Your task to perform on an android device: change keyboard looks Image 0: 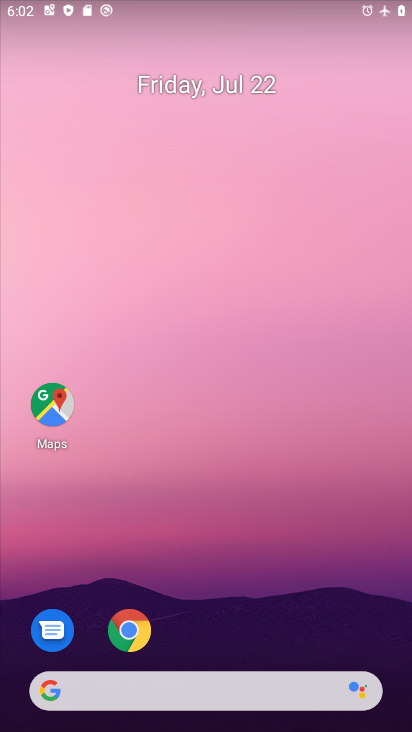
Step 0: drag from (155, 631) to (166, 131)
Your task to perform on an android device: change keyboard looks Image 1: 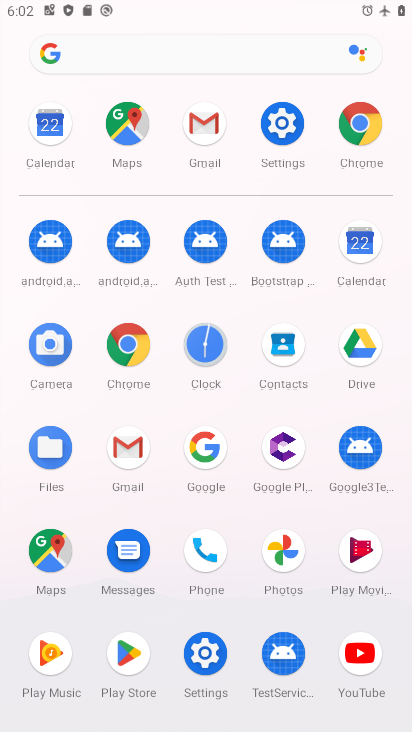
Step 1: click (275, 127)
Your task to perform on an android device: change keyboard looks Image 2: 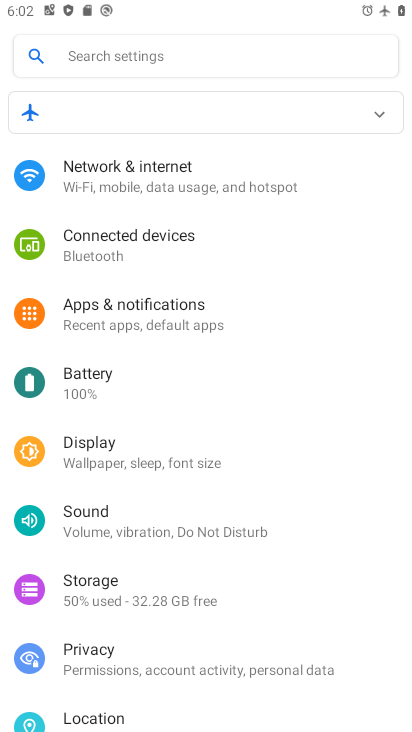
Step 2: drag from (184, 503) to (165, 1)
Your task to perform on an android device: change keyboard looks Image 3: 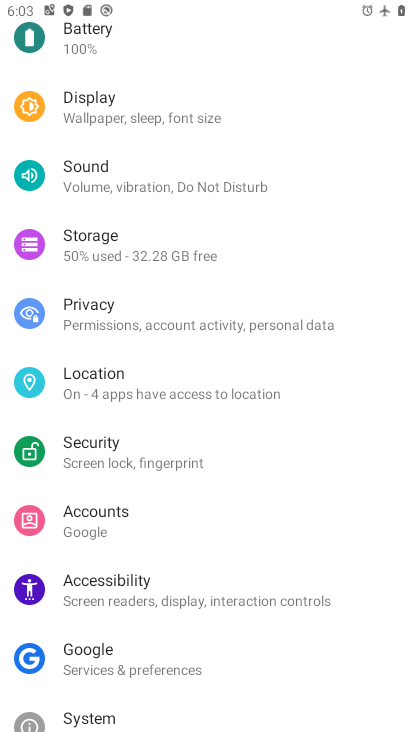
Step 3: drag from (120, 666) to (161, 98)
Your task to perform on an android device: change keyboard looks Image 4: 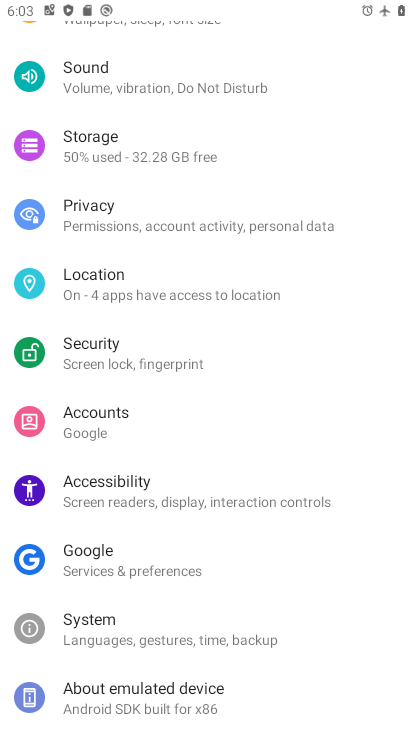
Step 4: click (139, 640)
Your task to perform on an android device: change keyboard looks Image 5: 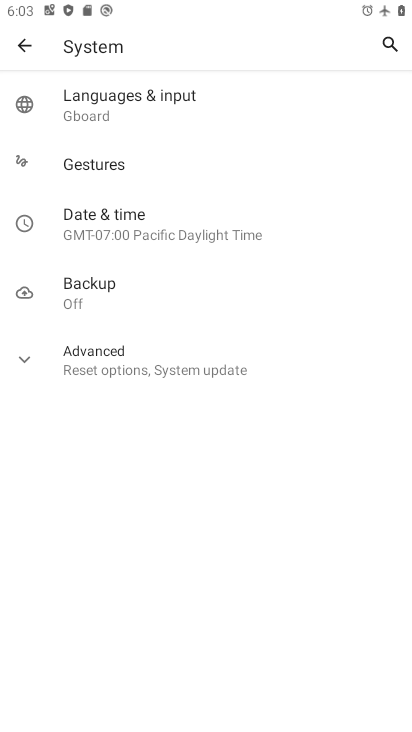
Step 5: click (91, 107)
Your task to perform on an android device: change keyboard looks Image 6: 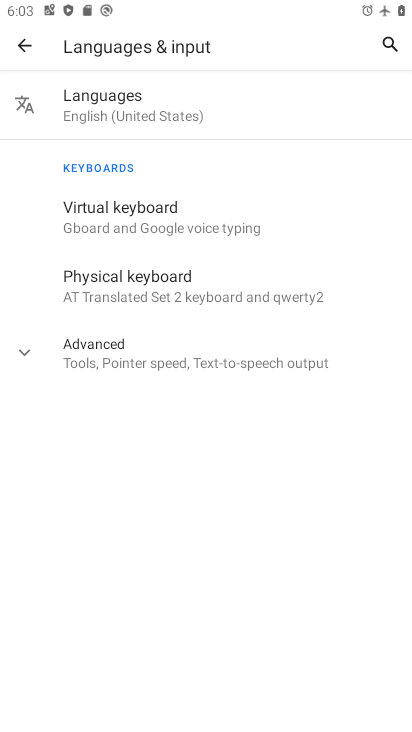
Step 6: click (164, 216)
Your task to perform on an android device: change keyboard looks Image 7: 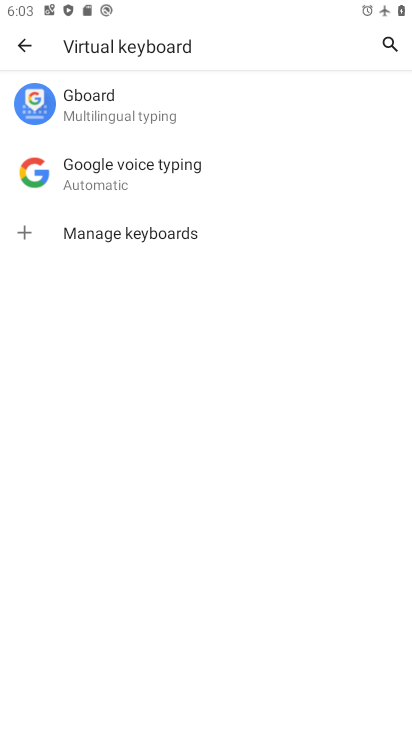
Step 7: click (134, 110)
Your task to perform on an android device: change keyboard looks Image 8: 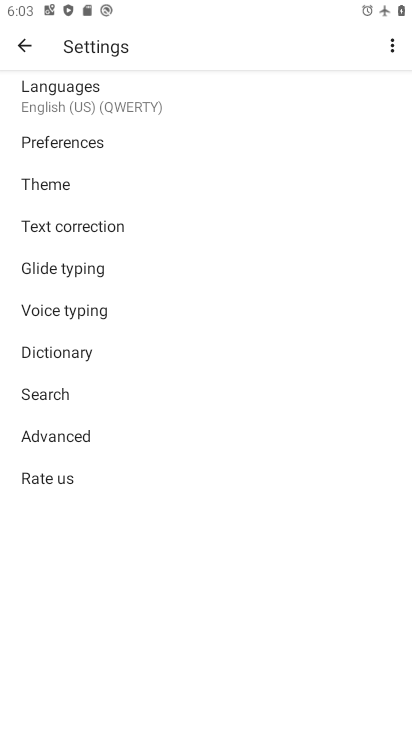
Step 8: click (71, 190)
Your task to perform on an android device: change keyboard looks Image 9: 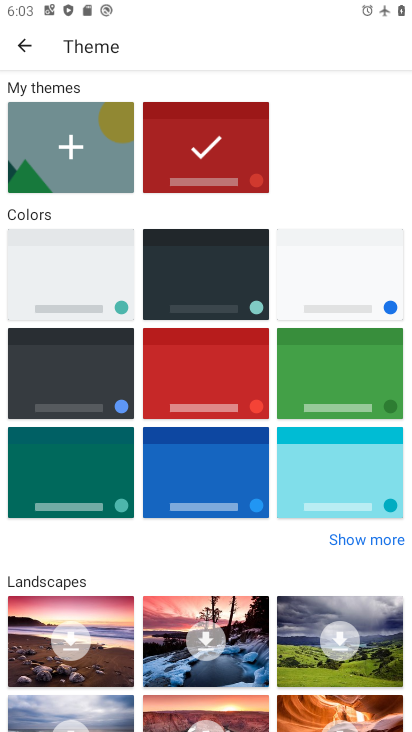
Step 9: click (198, 273)
Your task to perform on an android device: change keyboard looks Image 10: 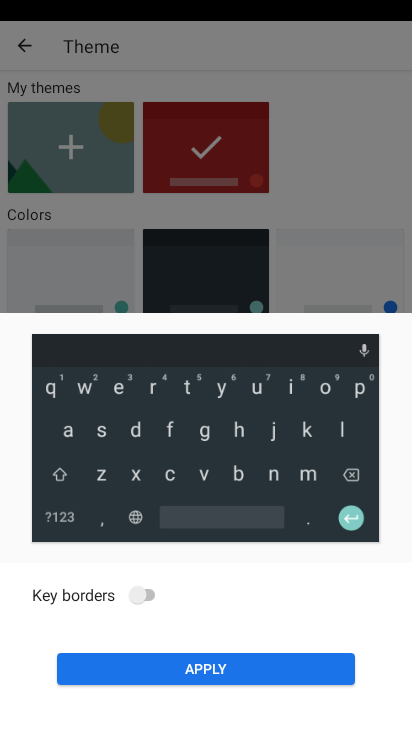
Step 10: click (246, 665)
Your task to perform on an android device: change keyboard looks Image 11: 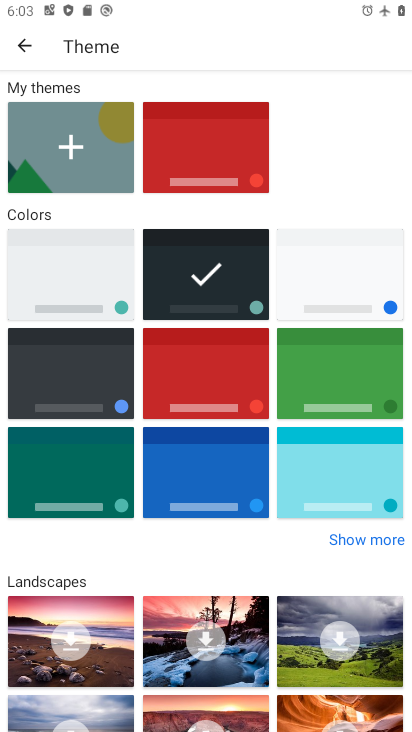
Step 11: task complete